Your task to perform on an android device: Is it going to rain tomorrow? Image 0: 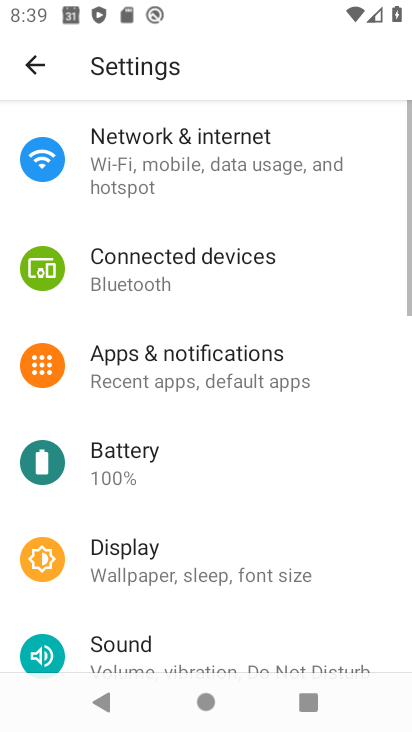
Step 0: press home button
Your task to perform on an android device: Is it going to rain tomorrow? Image 1: 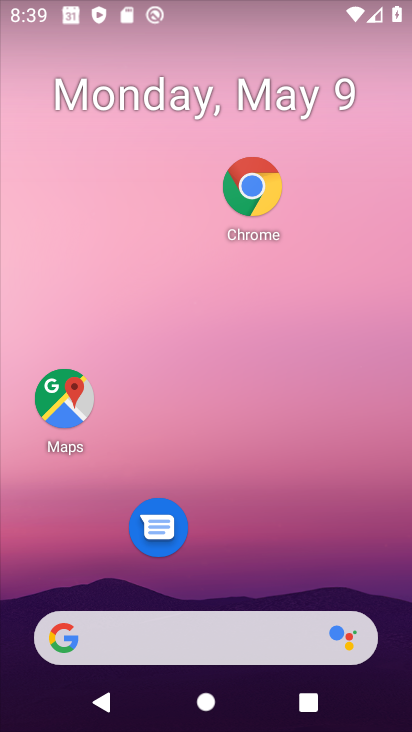
Step 1: drag from (13, 280) to (408, 340)
Your task to perform on an android device: Is it going to rain tomorrow? Image 2: 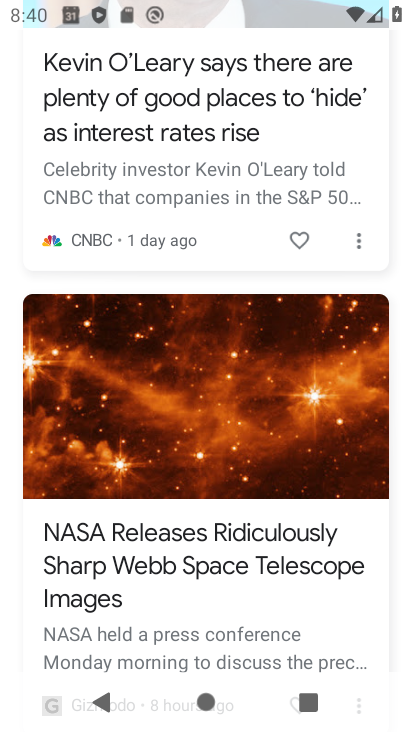
Step 2: drag from (169, 160) to (158, 646)
Your task to perform on an android device: Is it going to rain tomorrow? Image 3: 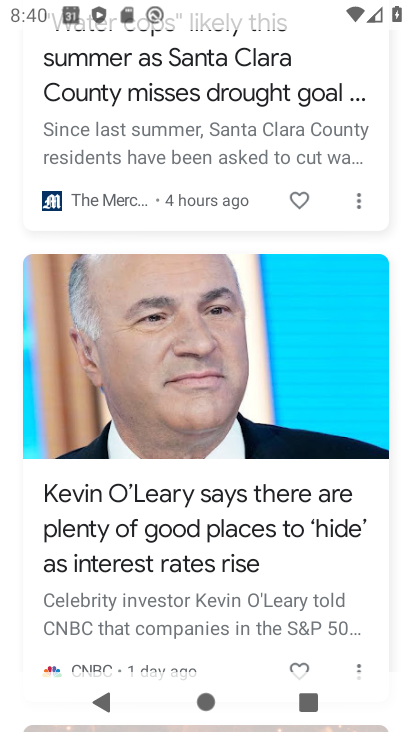
Step 3: drag from (197, 112) to (227, 709)
Your task to perform on an android device: Is it going to rain tomorrow? Image 4: 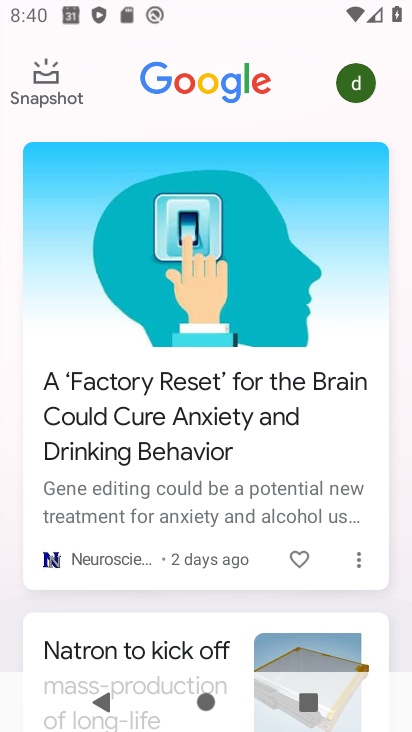
Step 4: click (190, 81)
Your task to perform on an android device: Is it going to rain tomorrow? Image 5: 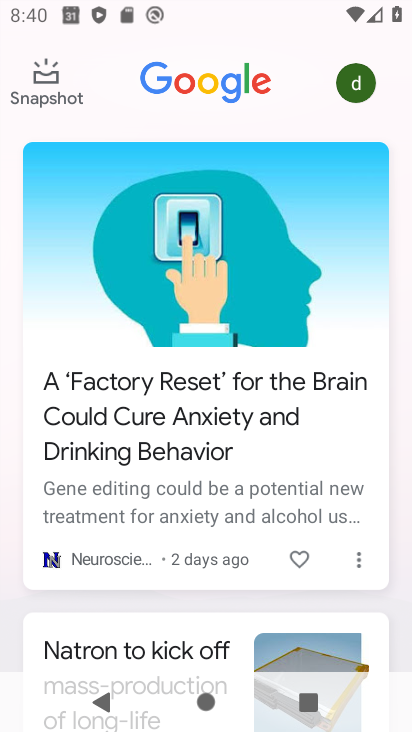
Step 5: press back button
Your task to perform on an android device: Is it going to rain tomorrow? Image 6: 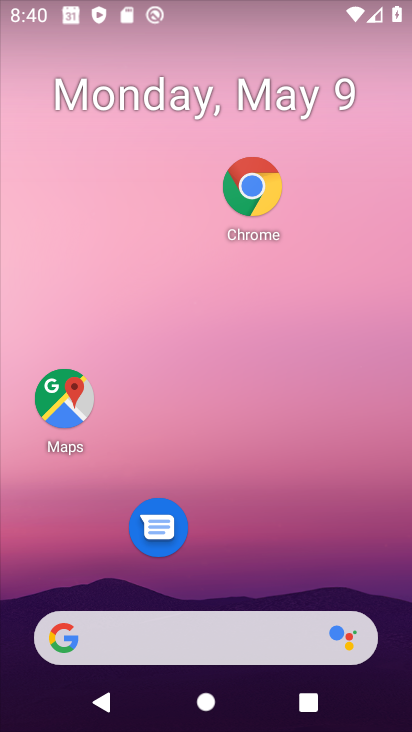
Step 6: drag from (218, 578) to (249, 65)
Your task to perform on an android device: Is it going to rain tomorrow? Image 7: 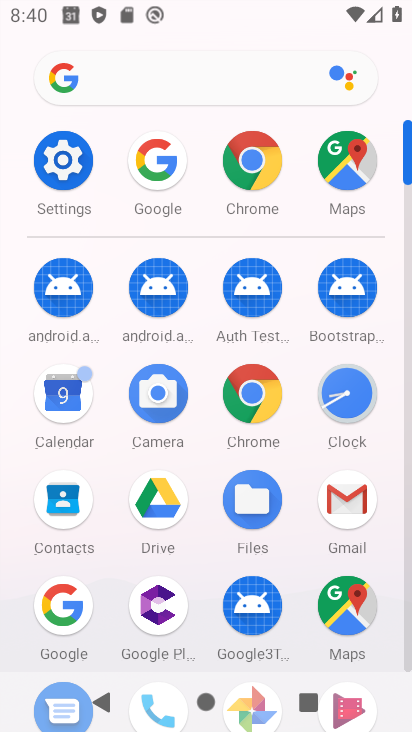
Step 7: click (57, 600)
Your task to perform on an android device: Is it going to rain tomorrow? Image 8: 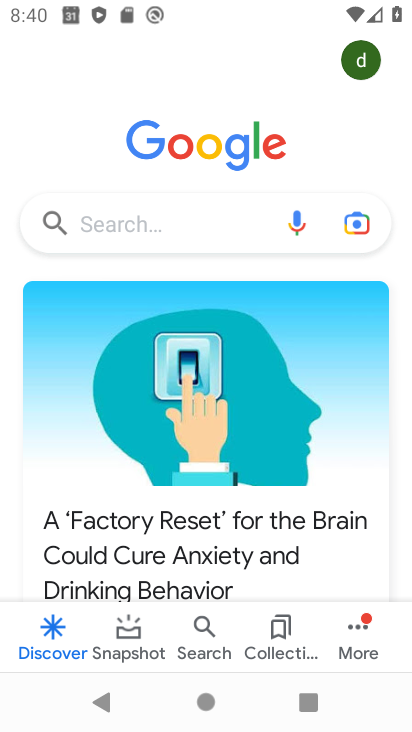
Step 8: click (158, 224)
Your task to perform on an android device: Is it going to rain tomorrow? Image 9: 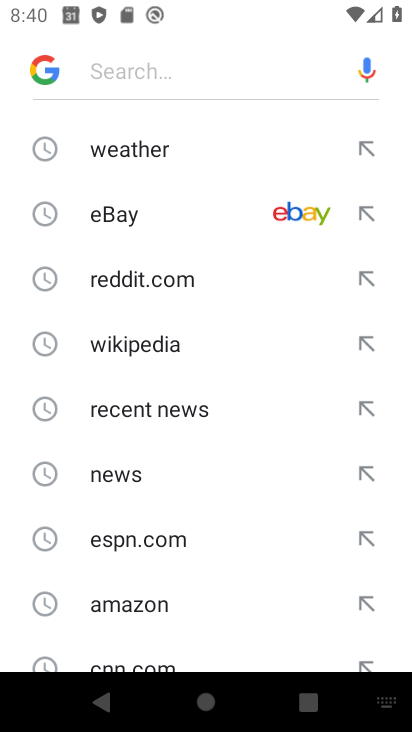
Step 9: click (149, 144)
Your task to perform on an android device: Is it going to rain tomorrow? Image 10: 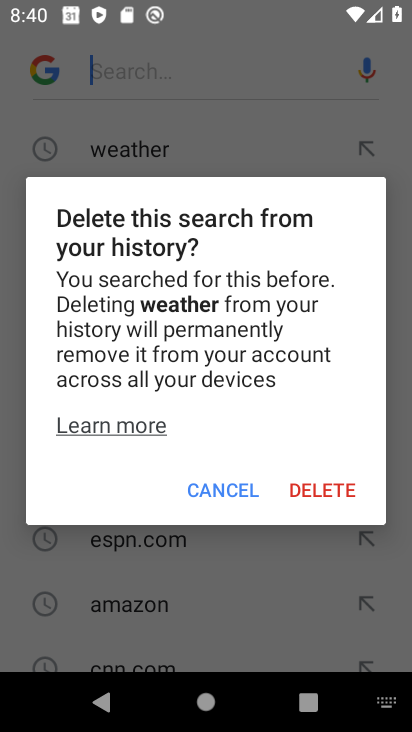
Step 10: click (224, 486)
Your task to perform on an android device: Is it going to rain tomorrow? Image 11: 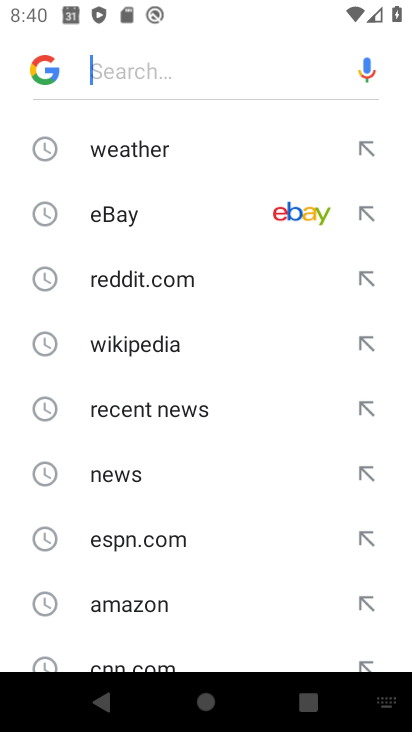
Step 11: click (143, 152)
Your task to perform on an android device: Is it going to rain tomorrow? Image 12: 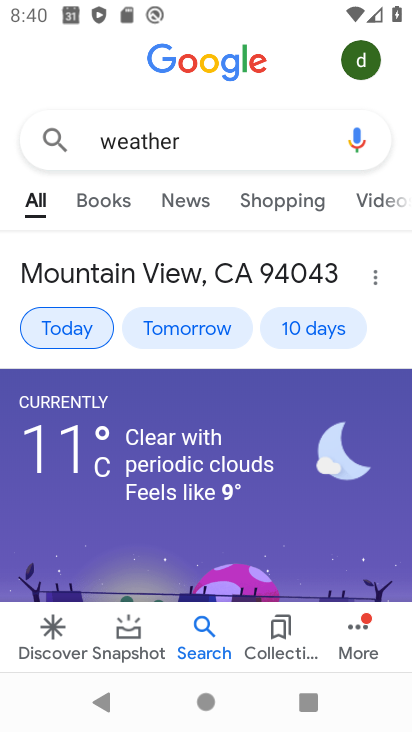
Step 12: click (206, 327)
Your task to perform on an android device: Is it going to rain tomorrow? Image 13: 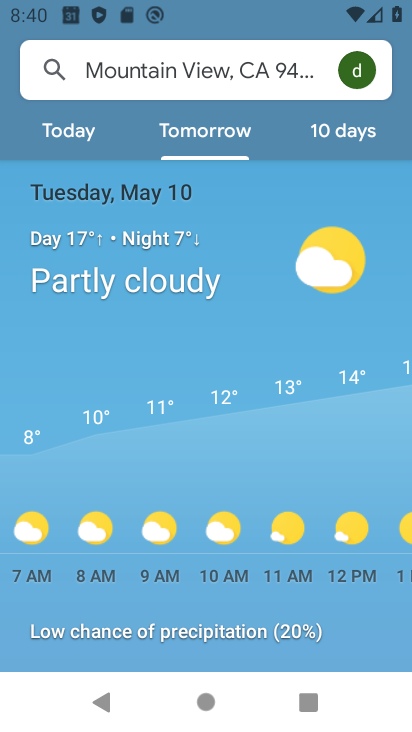
Step 13: drag from (335, 551) to (167, 517)
Your task to perform on an android device: Is it going to rain tomorrow? Image 14: 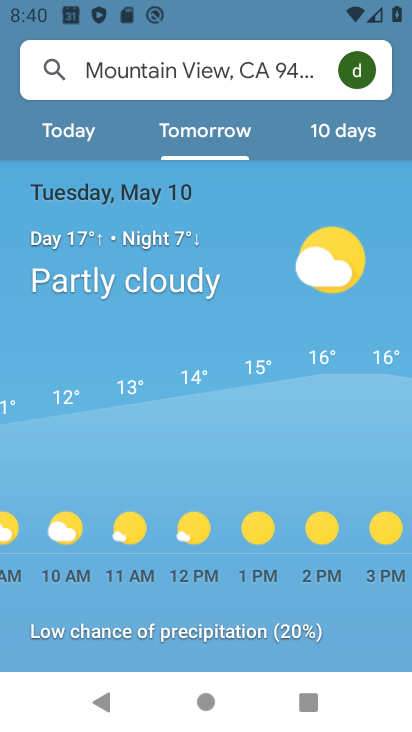
Step 14: drag from (385, 539) to (33, 525)
Your task to perform on an android device: Is it going to rain tomorrow? Image 15: 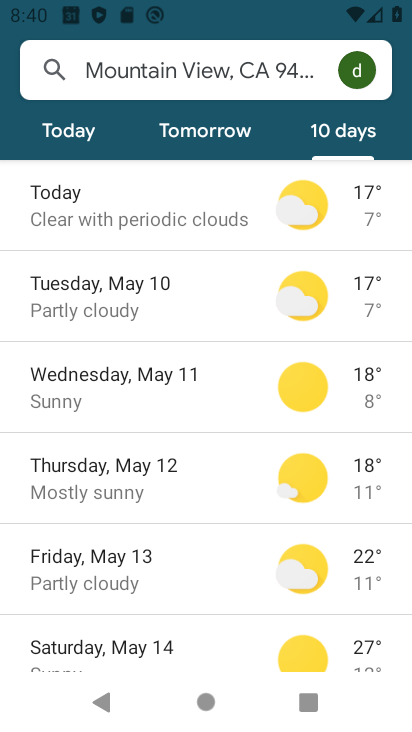
Step 15: click (200, 138)
Your task to perform on an android device: Is it going to rain tomorrow? Image 16: 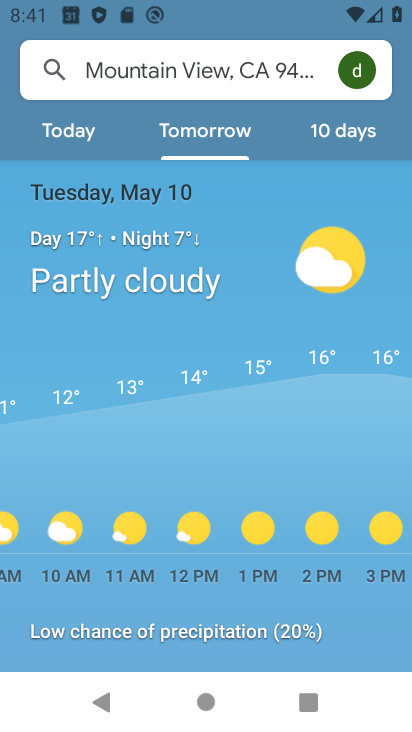
Step 16: task complete